Your task to perform on an android device: stop showing notifications on the lock screen Image 0: 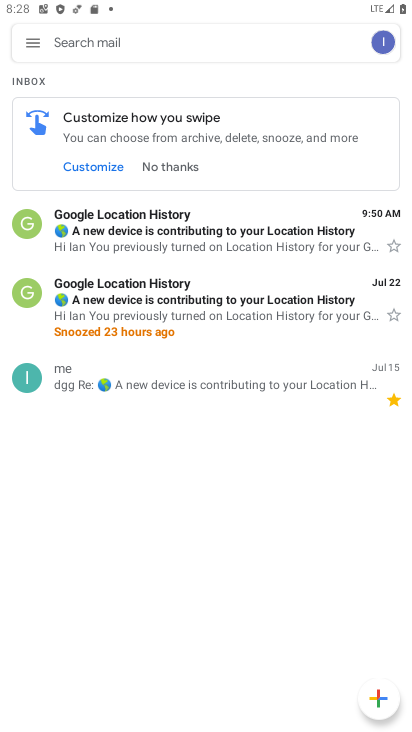
Step 0: press home button
Your task to perform on an android device: stop showing notifications on the lock screen Image 1: 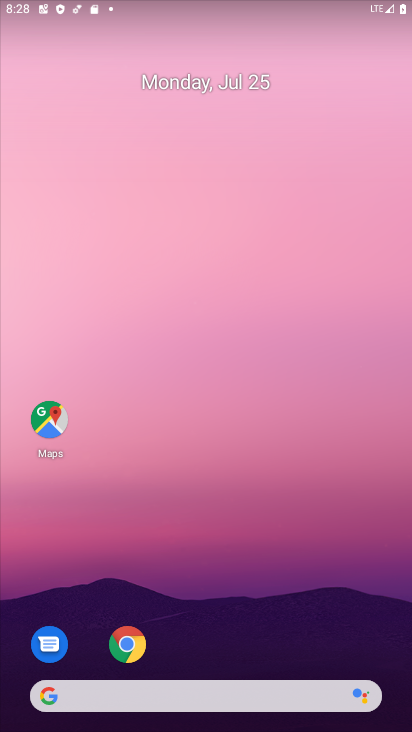
Step 1: drag from (208, 608) to (257, 114)
Your task to perform on an android device: stop showing notifications on the lock screen Image 2: 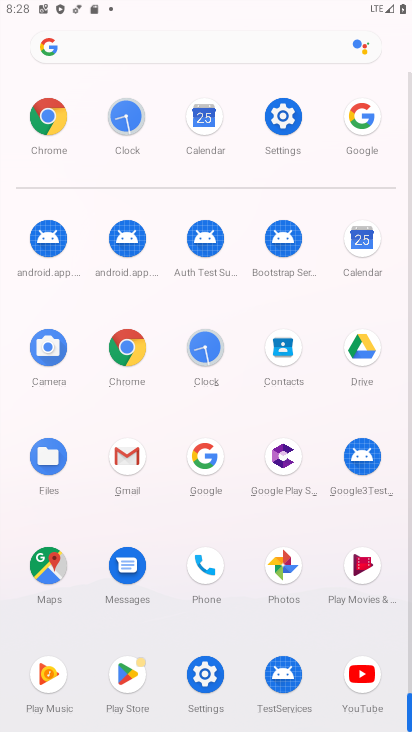
Step 2: click (288, 137)
Your task to perform on an android device: stop showing notifications on the lock screen Image 3: 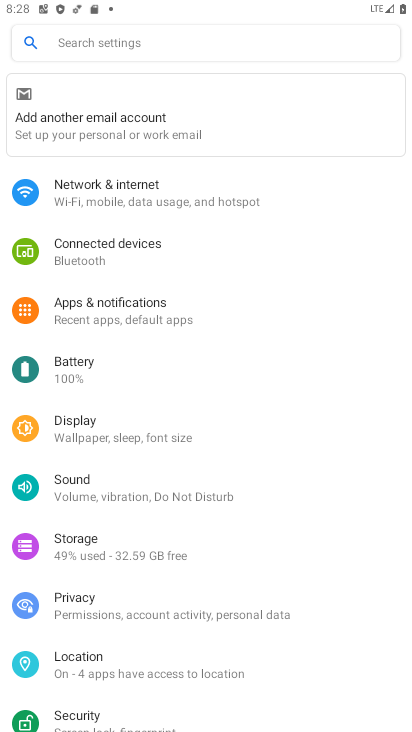
Step 3: drag from (182, 411) to (206, 143)
Your task to perform on an android device: stop showing notifications on the lock screen Image 4: 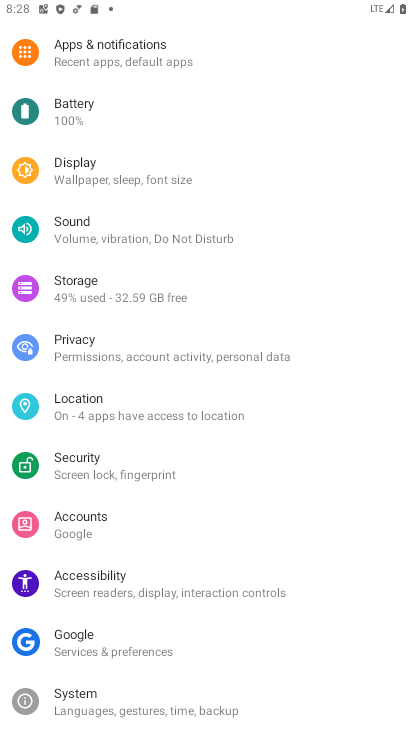
Step 4: click (141, 63)
Your task to perform on an android device: stop showing notifications on the lock screen Image 5: 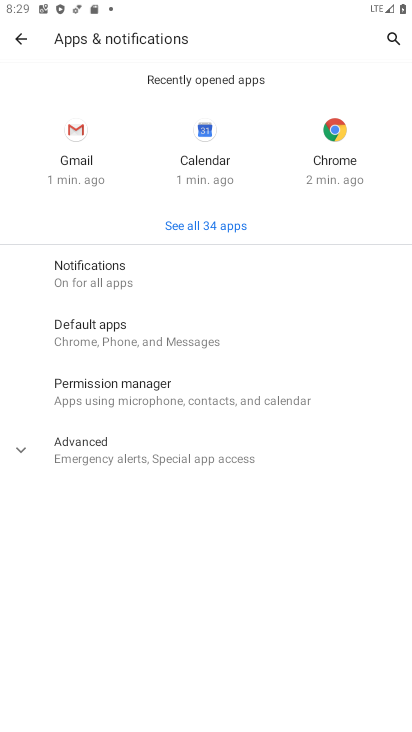
Step 5: click (122, 270)
Your task to perform on an android device: stop showing notifications on the lock screen Image 6: 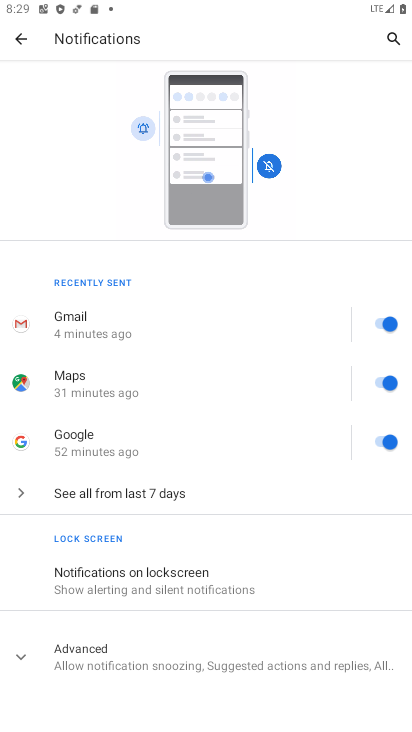
Step 6: click (119, 586)
Your task to perform on an android device: stop showing notifications on the lock screen Image 7: 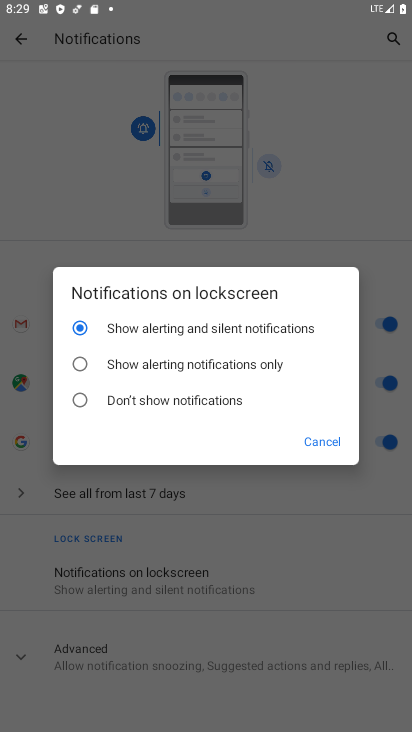
Step 7: click (95, 389)
Your task to perform on an android device: stop showing notifications on the lock screen Image 8: 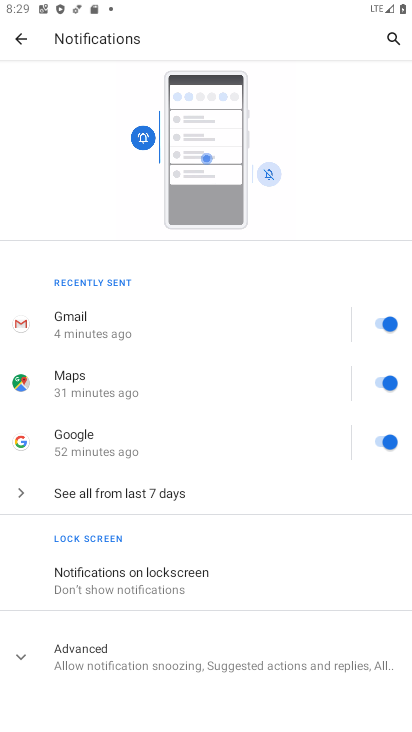
Step 8: task complete